Your task to perform on an android device: uninstall "Google Chat" Image 0: 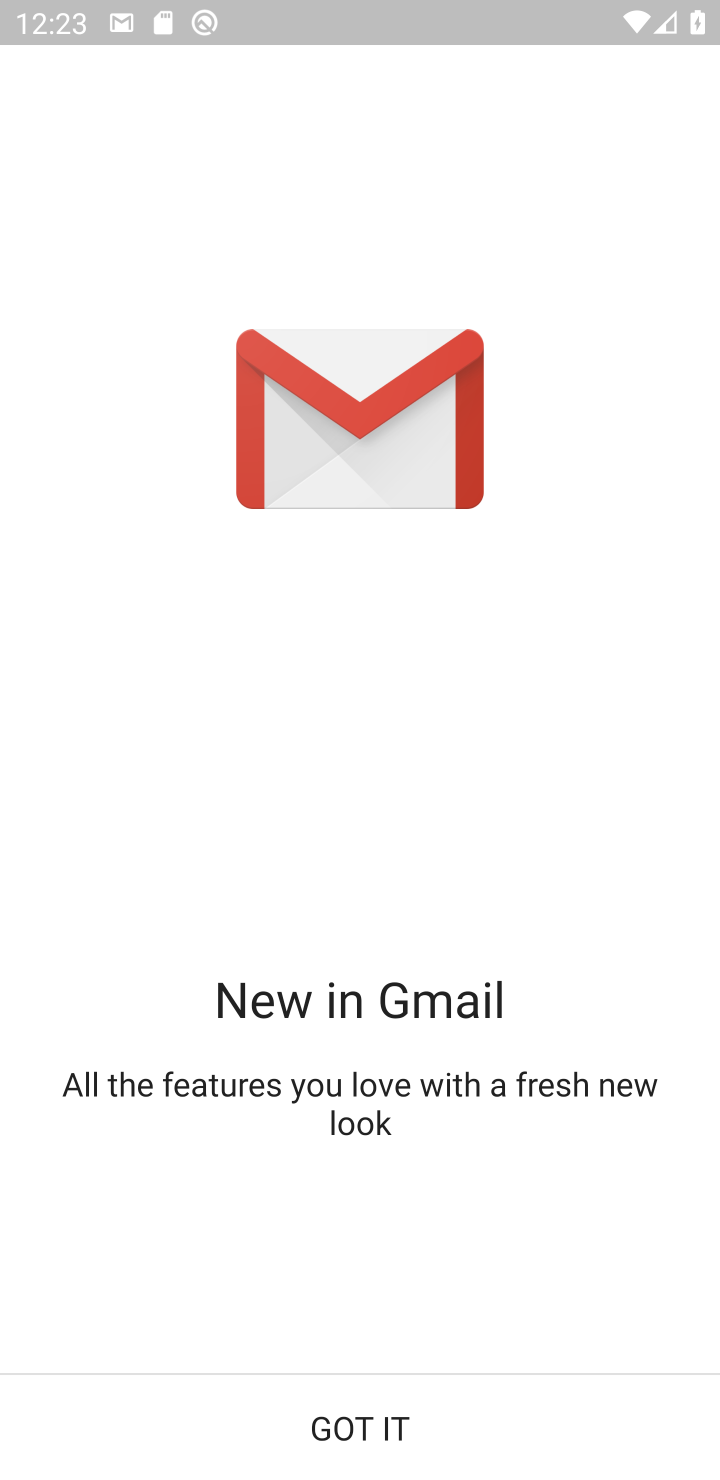
Step 0: press home button
Your task to perform on an android device: uninstall "Google Chat" Image 1: 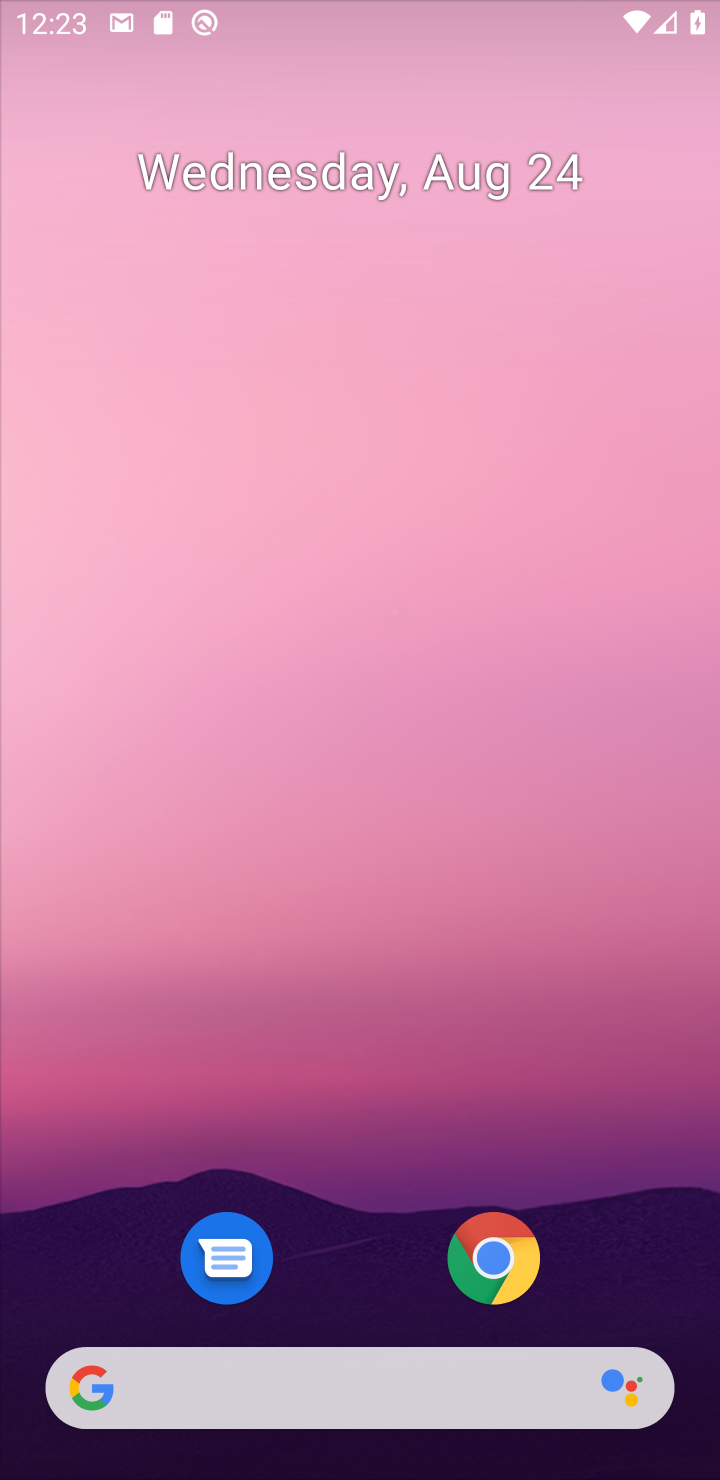
Step 1: drag from (358, 1304) to (518, 30)
Your task to perform on an android device: uninstall "Google Chat" Image 2: 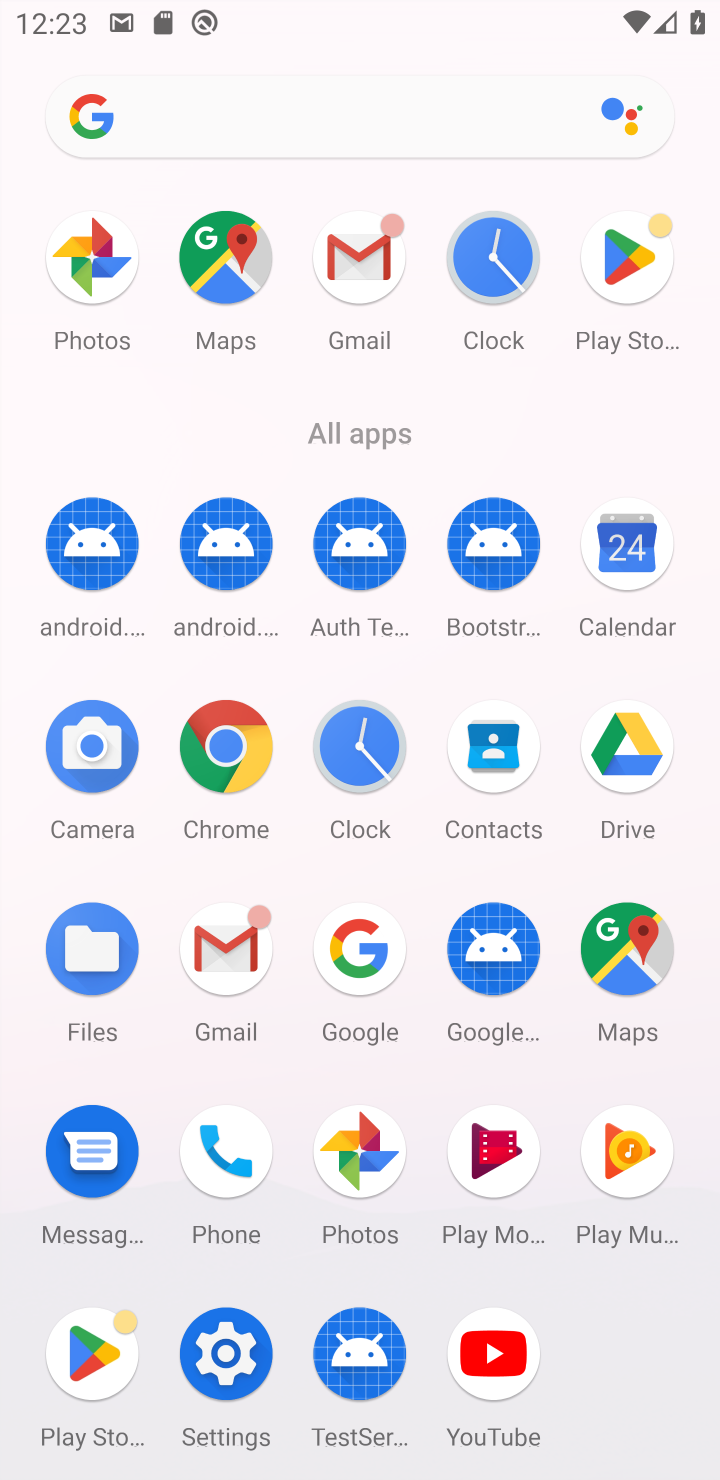
Step 2: click (625, 255)
Your task to perform on an android device: uninstall "Google Chat" Image 3: 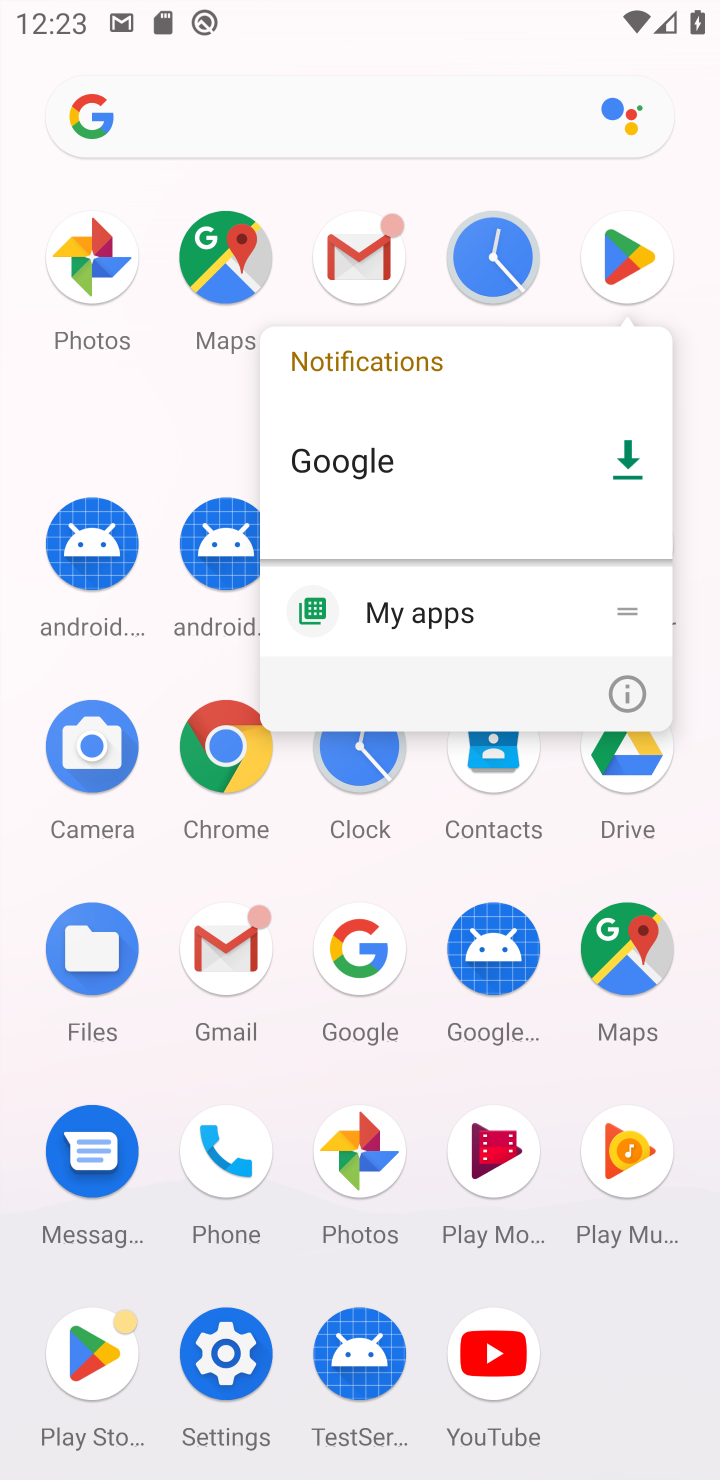
Step 3: click (625, 251)
Your task to perform on an android device: uninstall "Google Chat" Image 4: 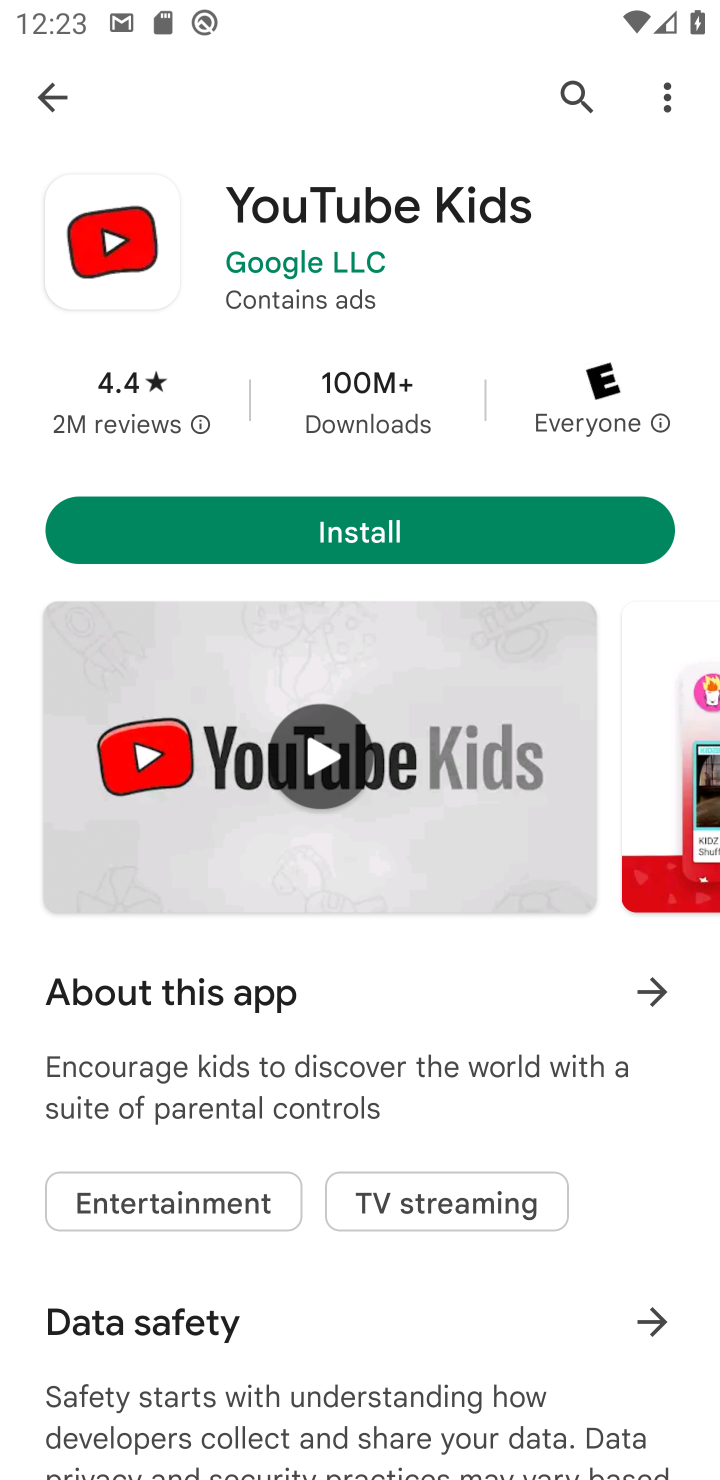
Step 4: click (75, 93)
Your task to perform on an android device: uninstall "Google Chat" Image 5: 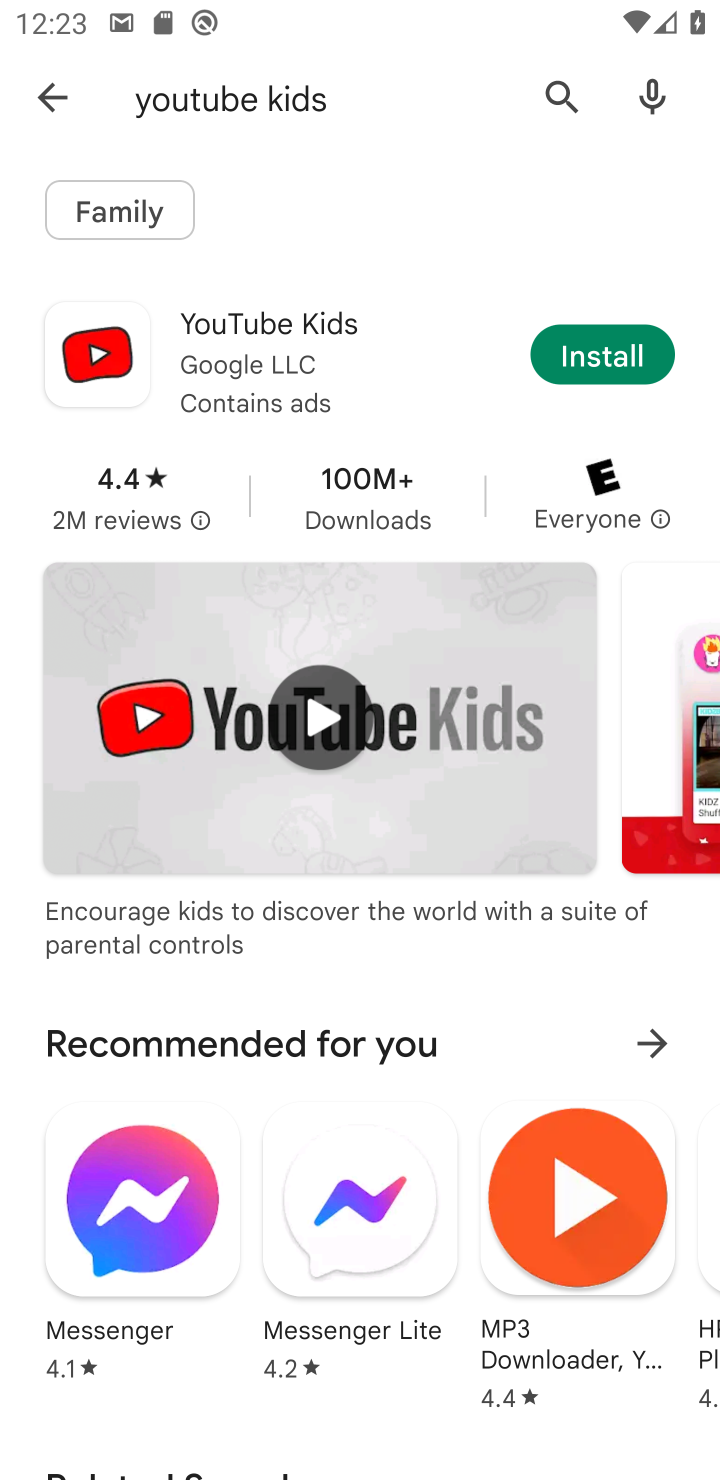
Step 5: click (294, 87)
Your task to perform on an android device: uninstall "Google Chat" Image 6: 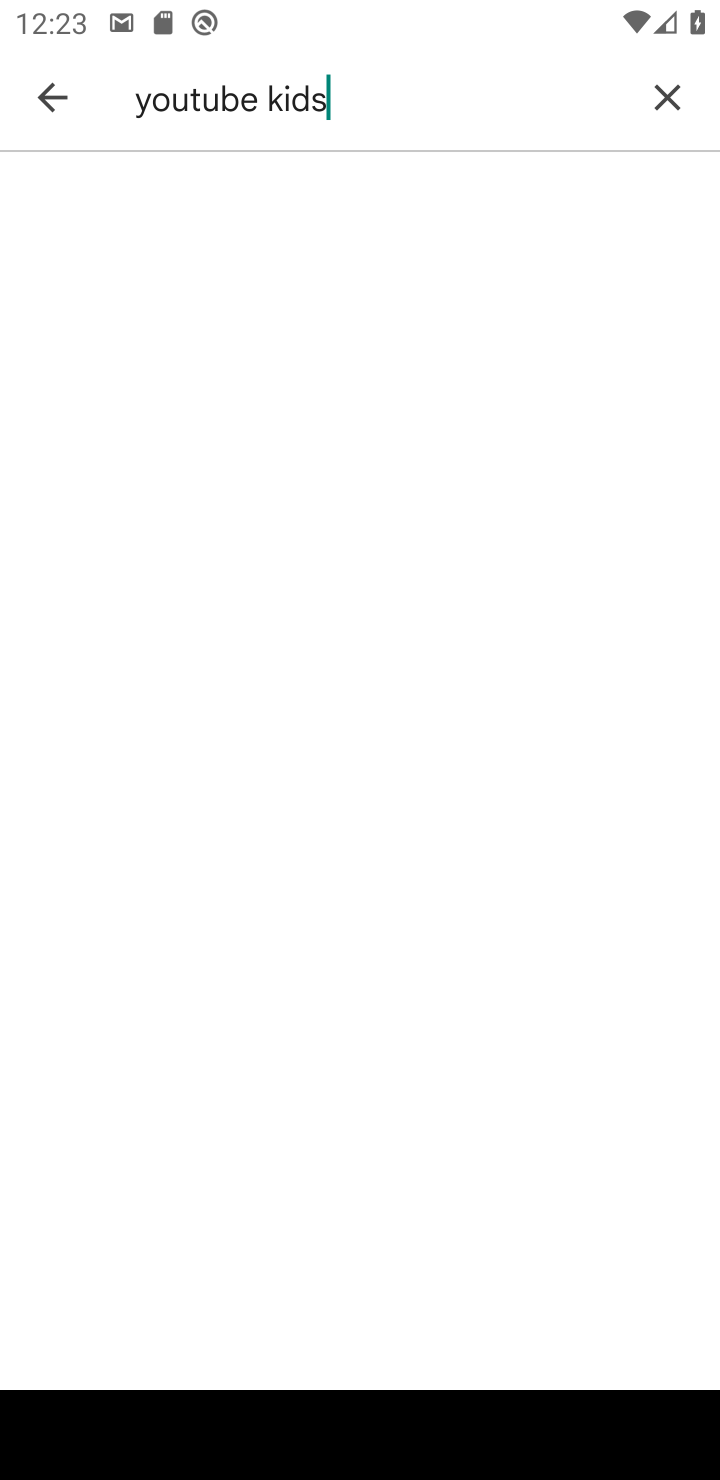
Step 6: click (664, 93)
Your task to perform on an android device: uninstall "Google Chat" Image 7: 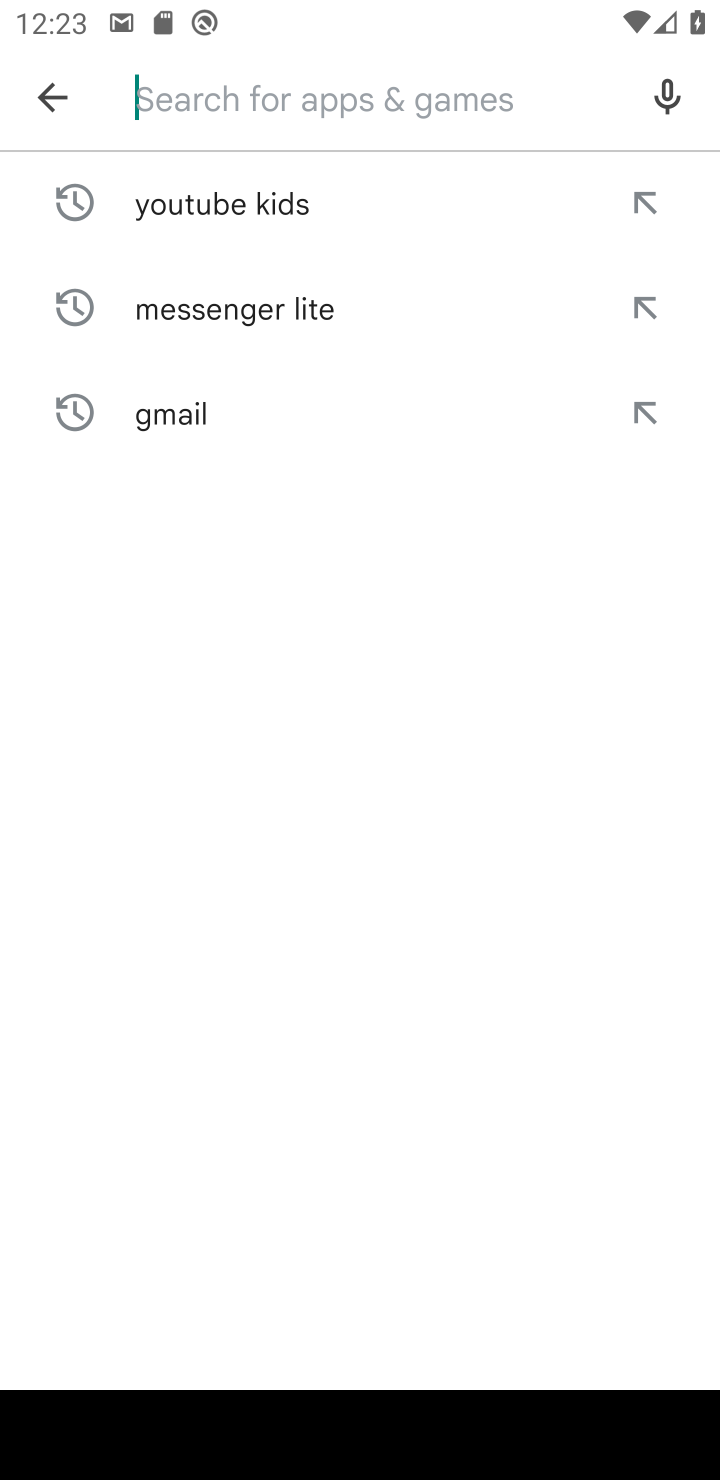
Step 7: type "google chat"
Your task to perform on an android device: uninstall "Google Chat" Image 8: 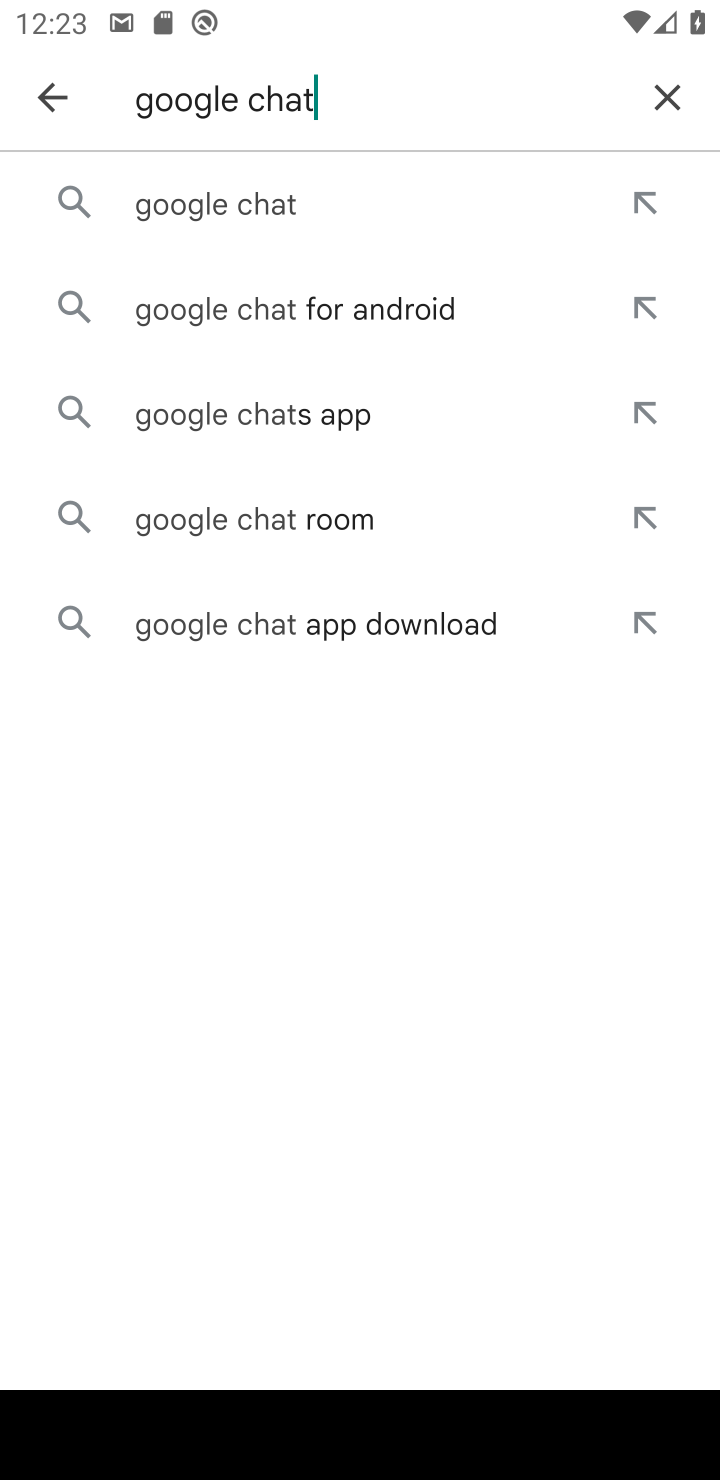
Step 8: click (267, 213)
Your task to perform on an android device: uninstall "Google Chat" Image 9: 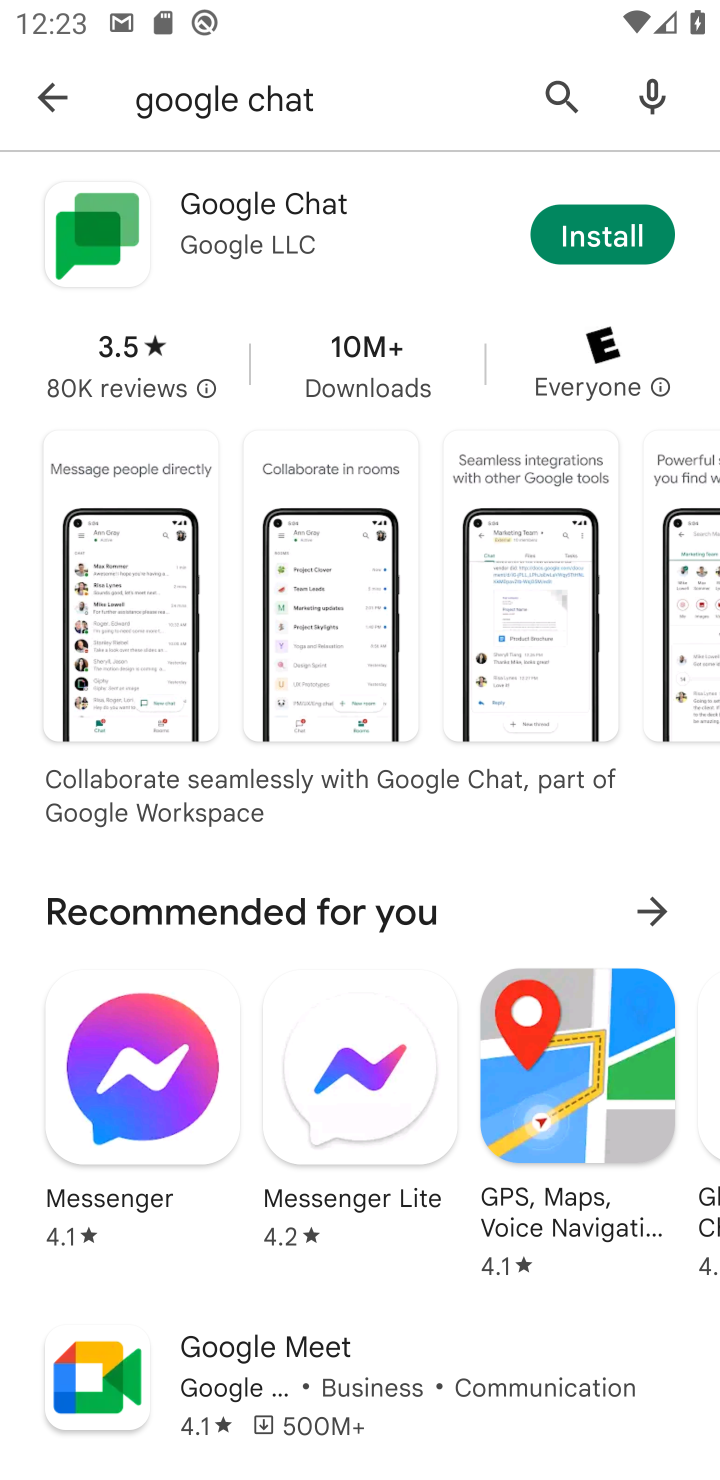
Step 9: task complete